Your task to perform on an android device: Go to battery settings Image 0: 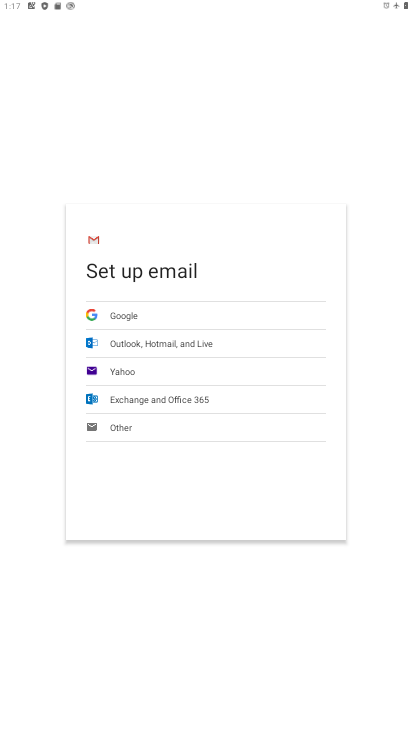
Step 0: press home button
Your task to perform on an android device: Go to battery settings Image 1: 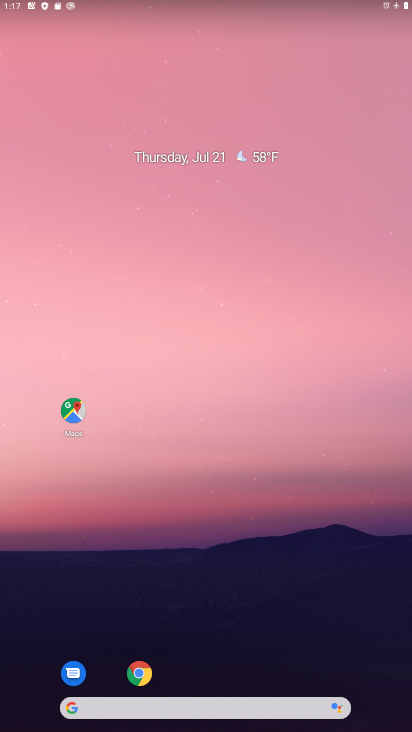
Step 1: drag from (219, 623) to (219, 232)
Your task to perform on an android device: Go to battery settings Image 2: 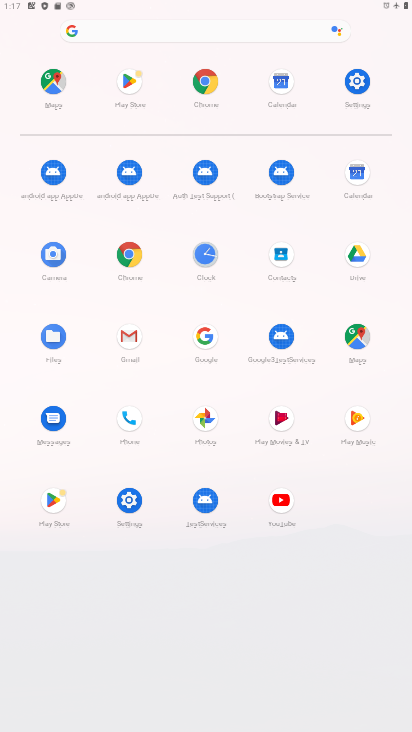
Step 2: click (357, 77)
Your task to perform on an android device: Go to battery settings Image 3: 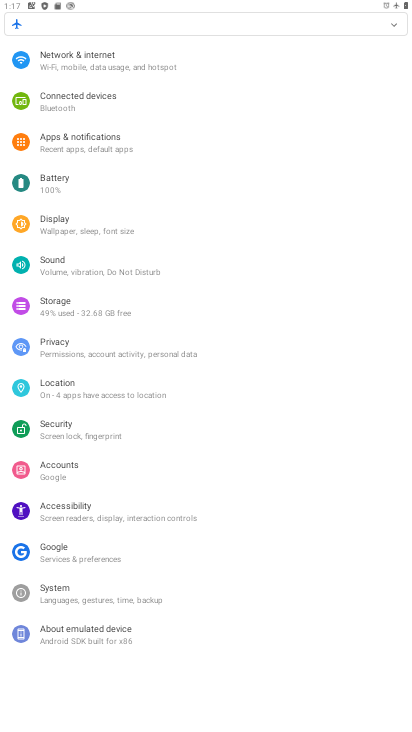
Step 3: click (81, 187)
Your task to perform on an android device: Go to battery settings Image 4: 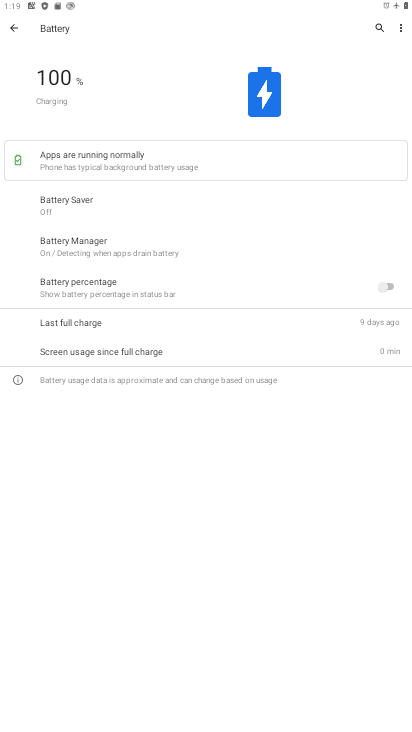
Step 4: task complete